Your task to perform on an android device: What is the recent news? Image 0: 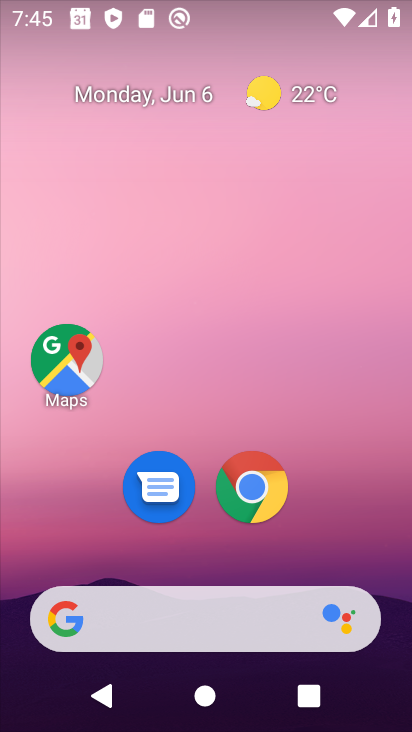
Step 0: drag from (355, 539) to (376, 229)
Your task to perform on an android device: What is the recent news? Image 1: 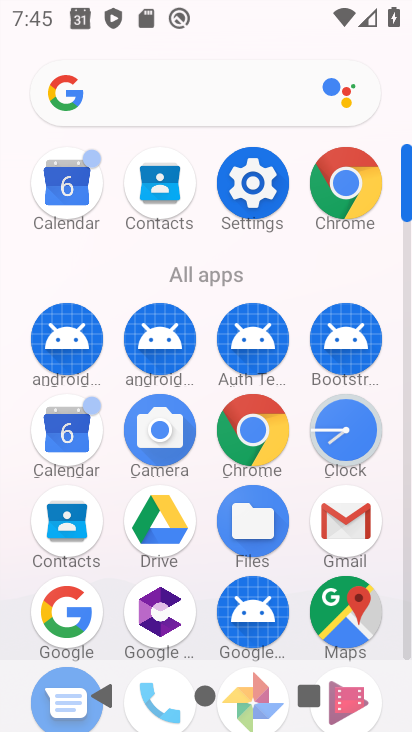
Step 1: click (258, 392)
Your task to perform on an android device: What is the recent news? Image 2: 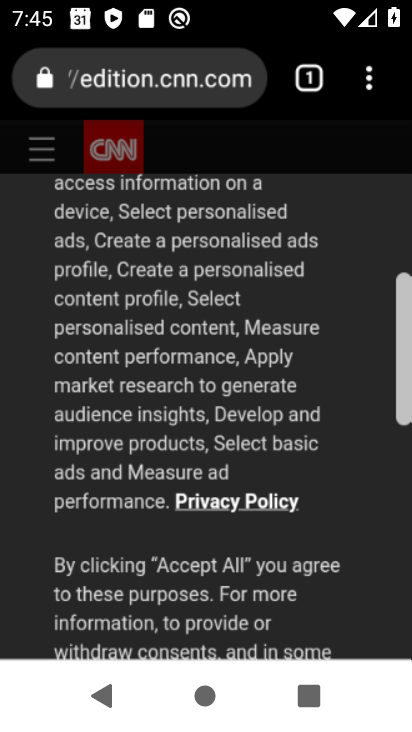
Step 2: click (195, 60)
Your task to perform on an android device: What is the recent news? Image 3: 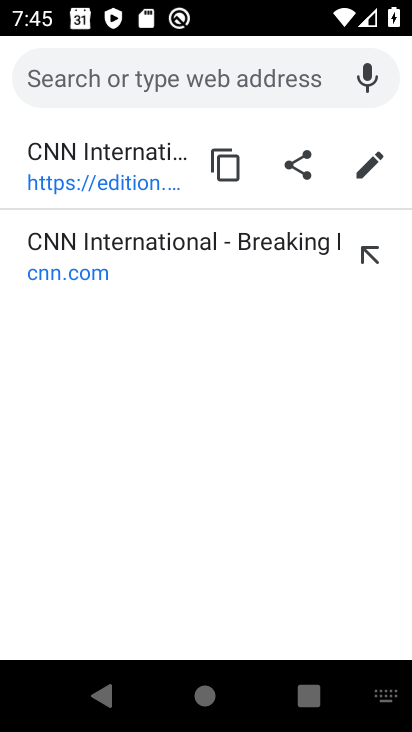
Step 3: type "what is the recent news"
Your task to perform on an android device: What is the recent news? Image 4: 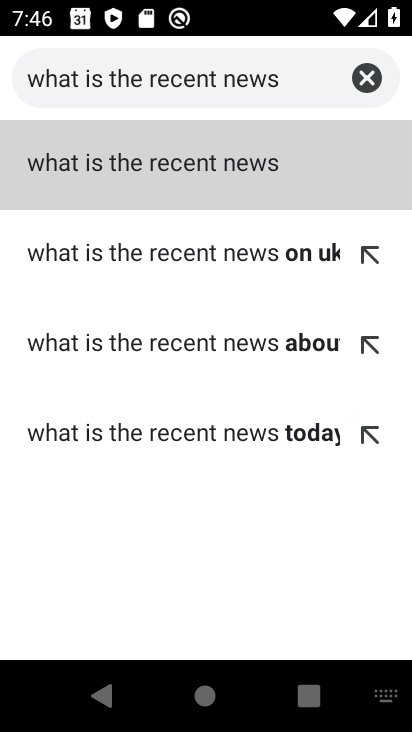
Step 4: click (117, 163)
Your task to perform on an android device: What is the recent news? Image 5: 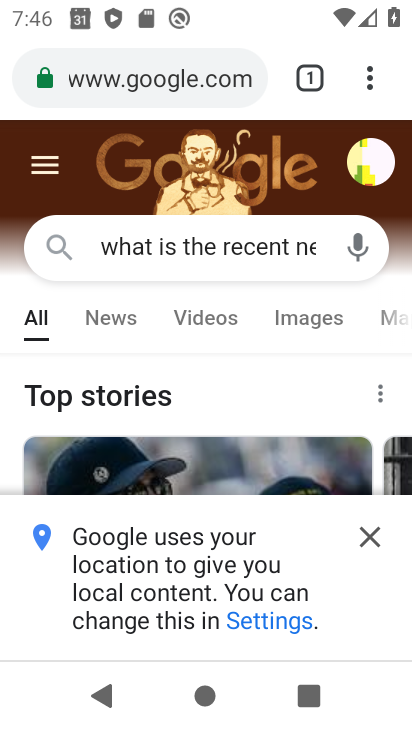
Step 5: click (294, 88)
Your task to perform on an android device: What is the recent news? Image 6: 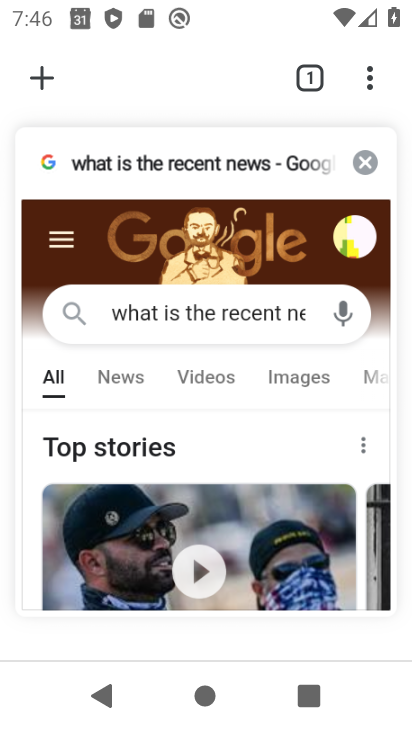
Step 6: click (365, 537)
Your task to perform on an android device: What is the recent news? Image 7: 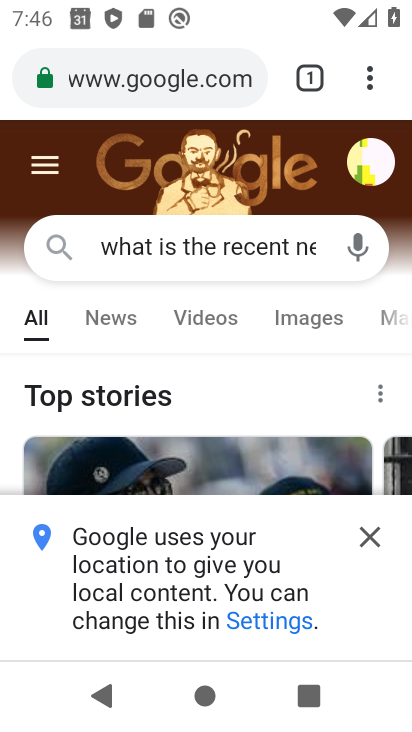
Step 7: drag from (341, 568) to (341, 327)
Your task to perform on an android device: What is the recent news? Image 8: 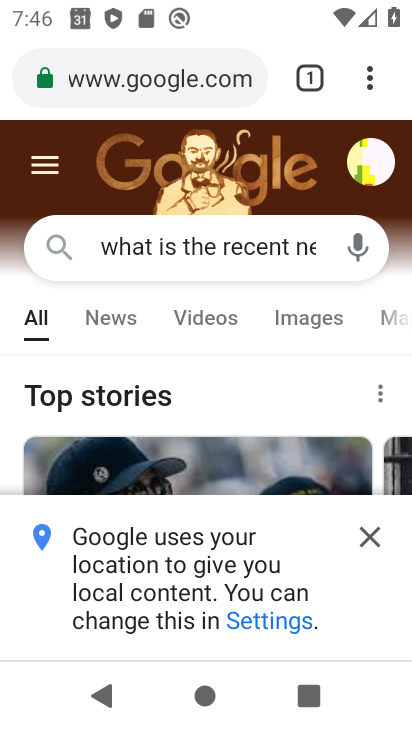
Step 8: click (363, 538)
Your task to perform on an android device: What is the recent news? Image 9: 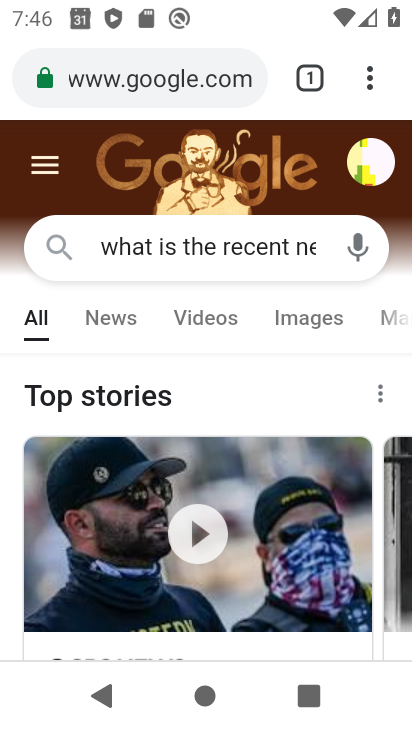
Step 9: task complete